Your task to perform on an android device: set default search engine in the chrome app Image 0: 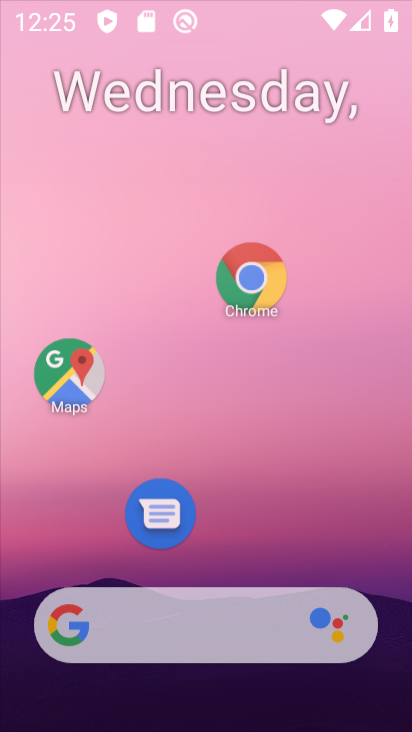
Step 0: click (304, 86)
Your task to perform on an android device: set default search engine in the chrome app Image 1: 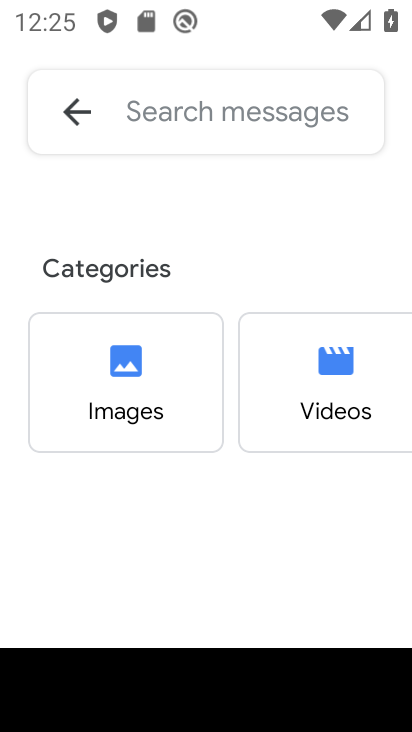
Step 1: press home button
Your task to perform on an android device: set default search engine in the chrome app Image 2: 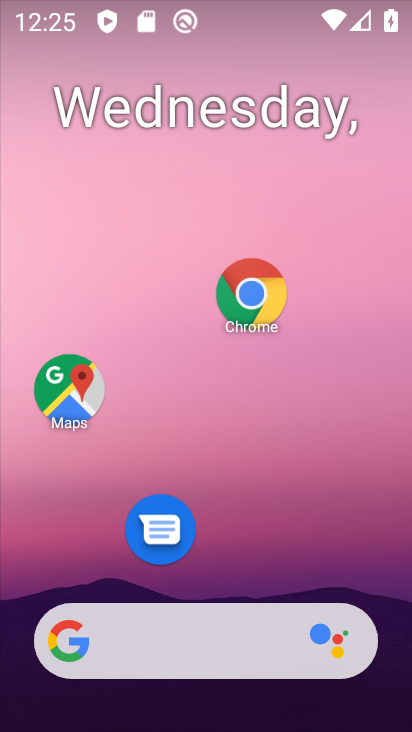
Step 2: drag from (232, 701) to (324, 254)
Your task to perform on an android device: set default search engine in the chrome app Image 3: 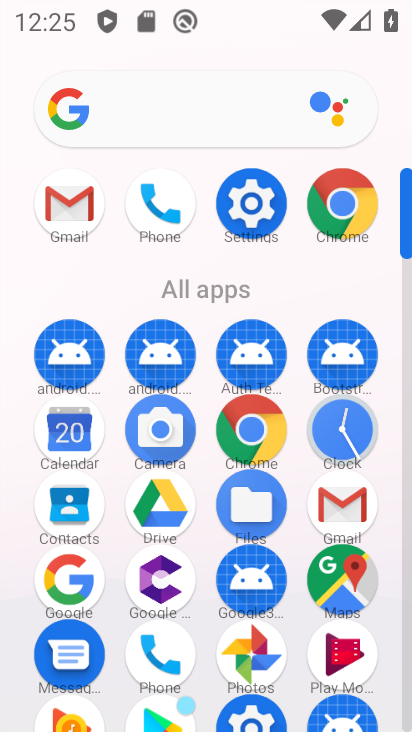
Step 3: click (364, 221)
Your task to perform on an android device: set default search engine in the chrome app Image 4: 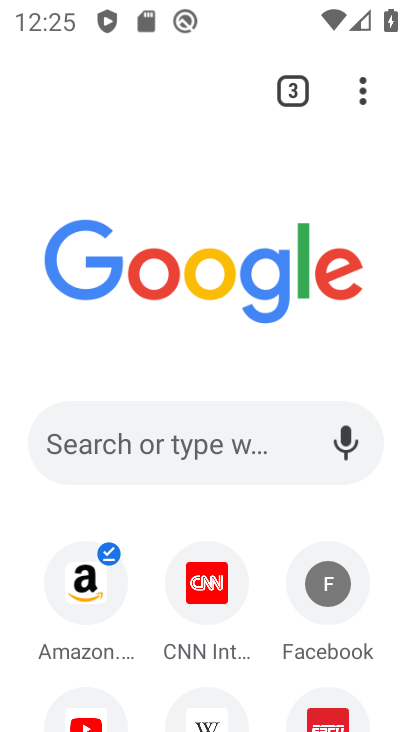
Step 4: click (366, 84)
Your task to perform on an android device: set default search engine in the chrome app Image 5: 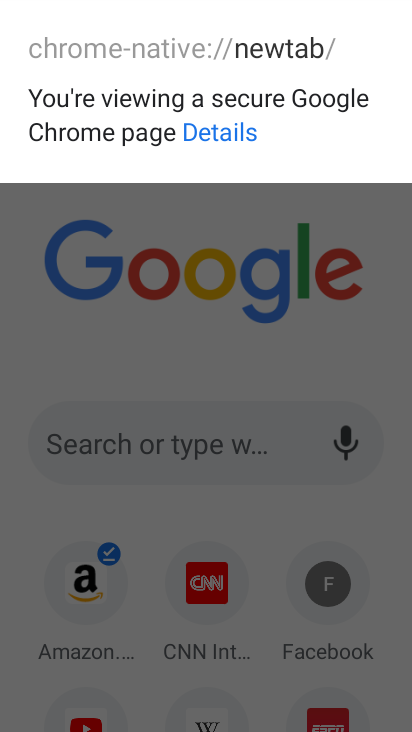
Step 5: click (287, 276)
Your task to perform on an android device: set default search engine in the chrome app Image 6: 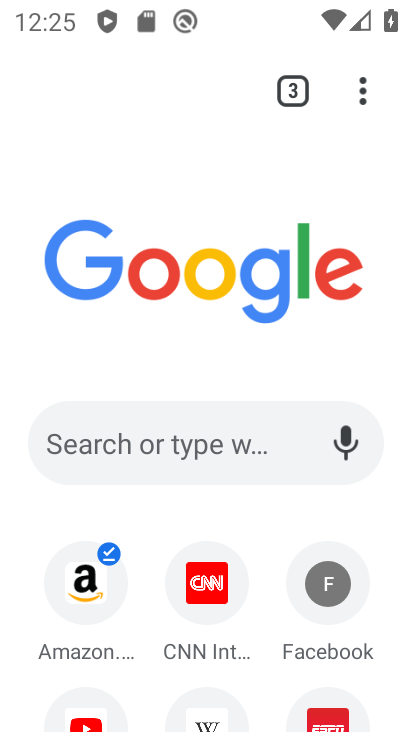
Step 6: click (367, 103)
Your task to perform on an android device: set default search engine in the chrome app Image 7: 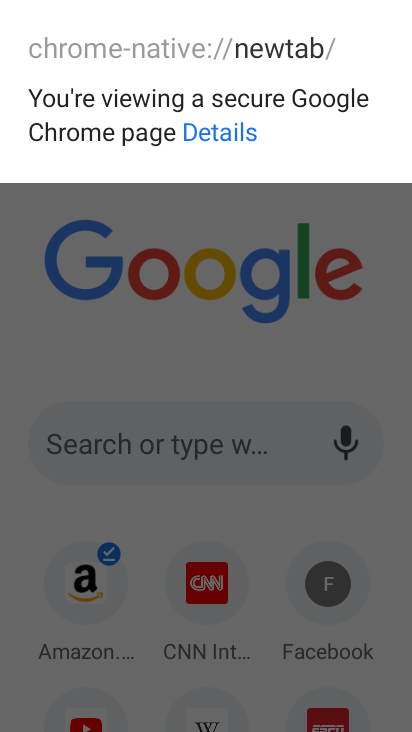
Step 7: click (275, 365)
Your task to perform on an android device: set default search engine in the chrome app Image 8: 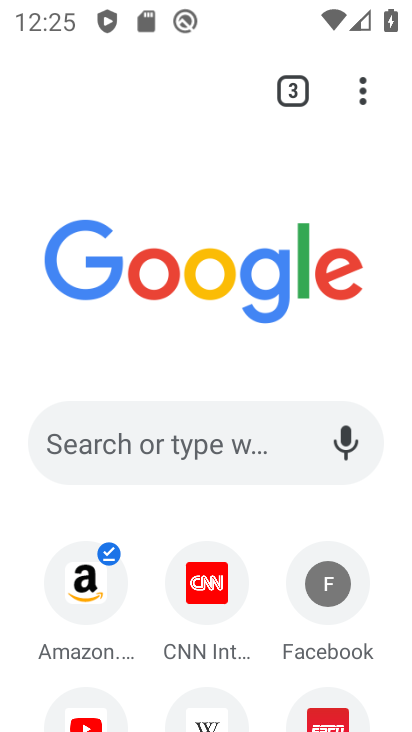
Step 8: click (365, 105)
Your task to perform on an android device: set default search engine in the chrome app Image 9: 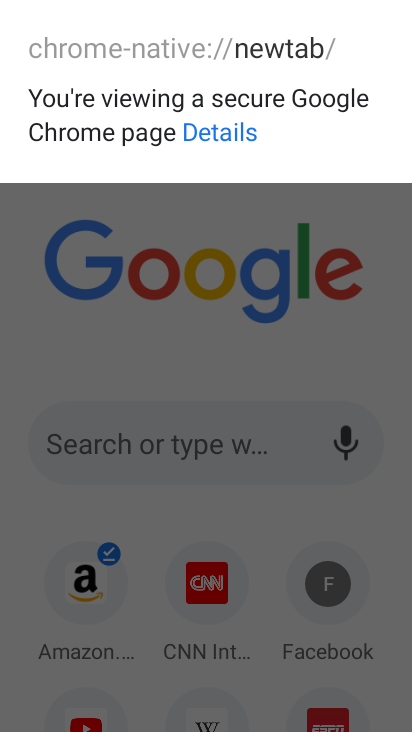
Step 9: click (290, 260)
Your task to perform on an android device: set default search engine in the chrome app Image 10: 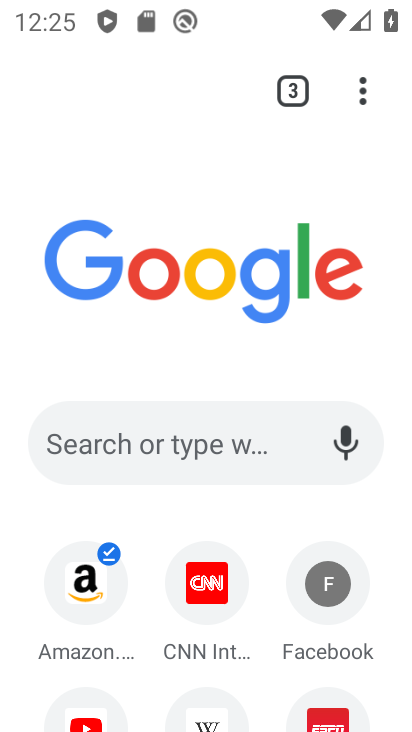
Step 10: click (363, 79)
Your task to perform on an android device: set default search engine in the chrome app Image 11: 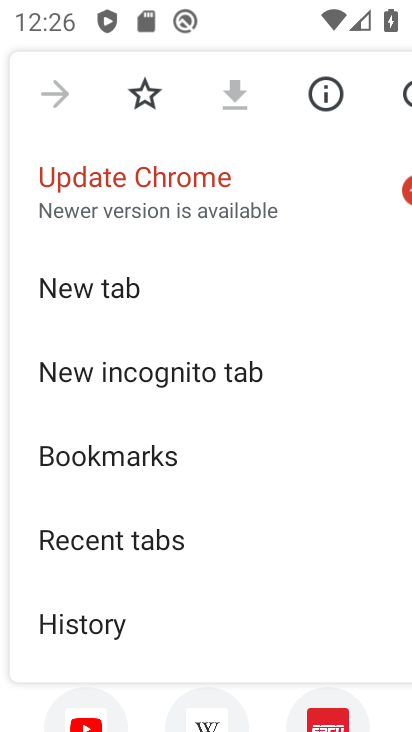
Step 11: drag from (232, 518) to (239, 123)
Your task to perform on an android device: set default search engine in the chrome app Image 12: 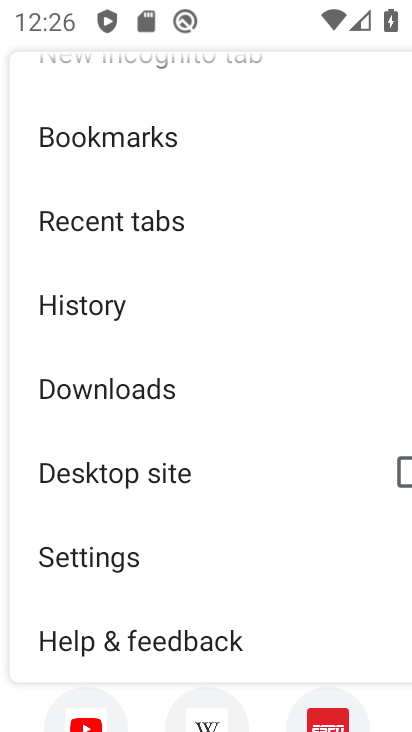
Step 12: drag from (241, 442) to (268, 91)
Your task to perform on an android device: set default search engine in the chrome app Image 13: 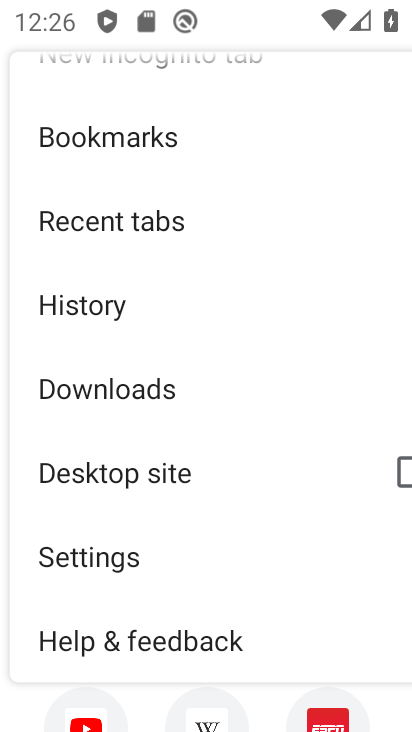
Step 13: click (273, 545)
Your task to perform on an android device: set default search engine in the chrome app Image 14: 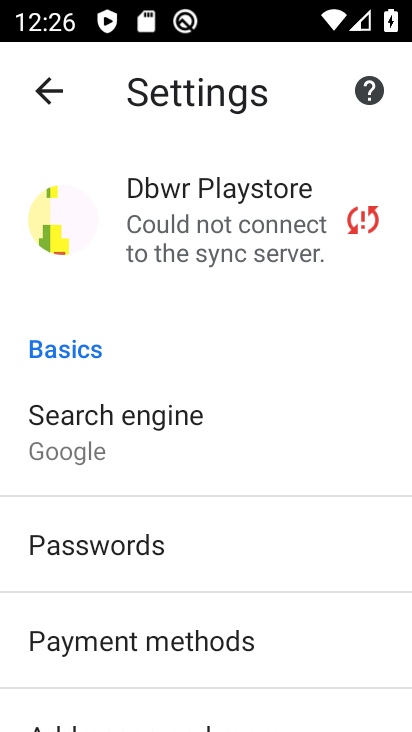
Step 14: click (188, 461)
Your task to perform on an android device: set default search engine in the chrome app Image 15: 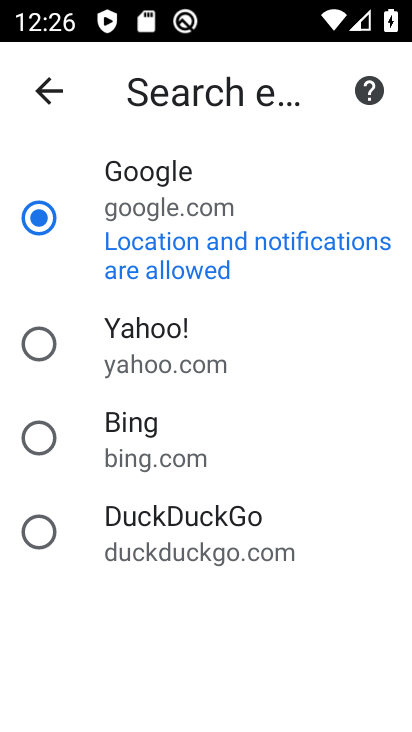
Step 15: task complete